Your task to perform on an android device: Go to sound settings Image 0: 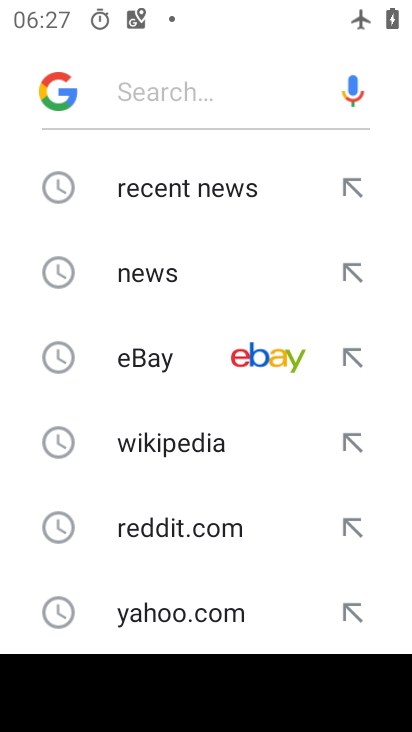
Step 0: press home button
Your task to perform on an android device: Go to sound settings Image 1: 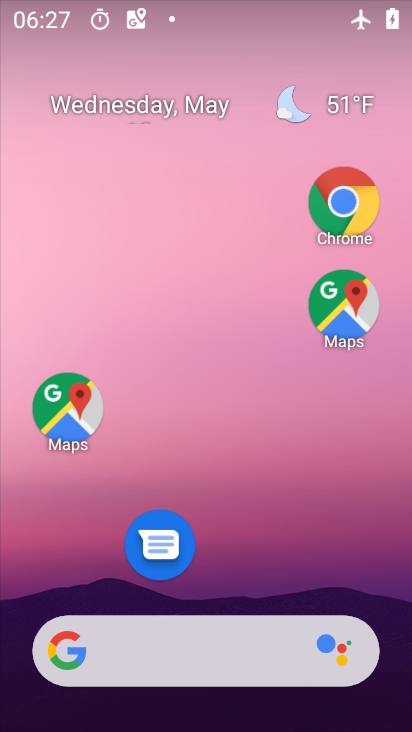
Step 1: click (338, 220)
Your task to perform on an android device: Go to sound settings Image 2: 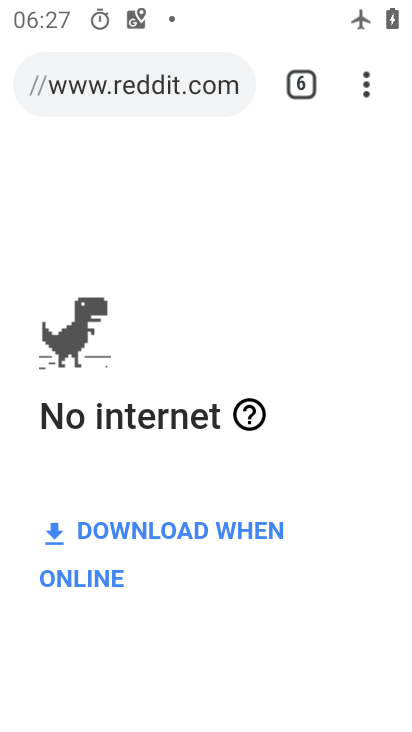
Step 2: press home button
Your task to perform on an android device: Go to sound settings Image 3: 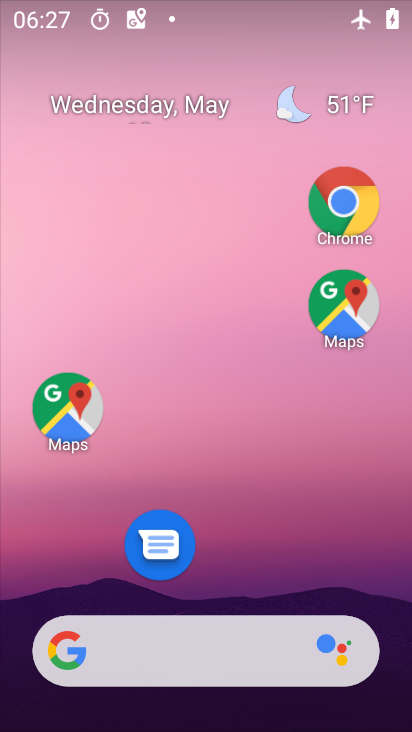
Step 3: drag from (275, 505) to (176, 113)
Your task to perform on an android device: Go to sound settings Image 4: 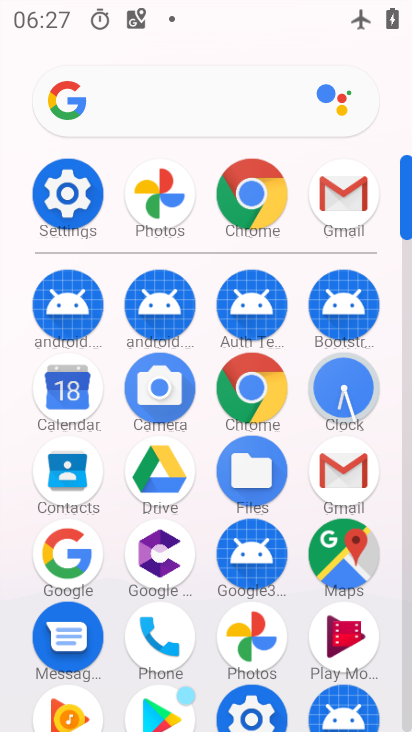
Step 4: click (73, 200)
Your task to perform on an android device: Go to sound settings Image 5: 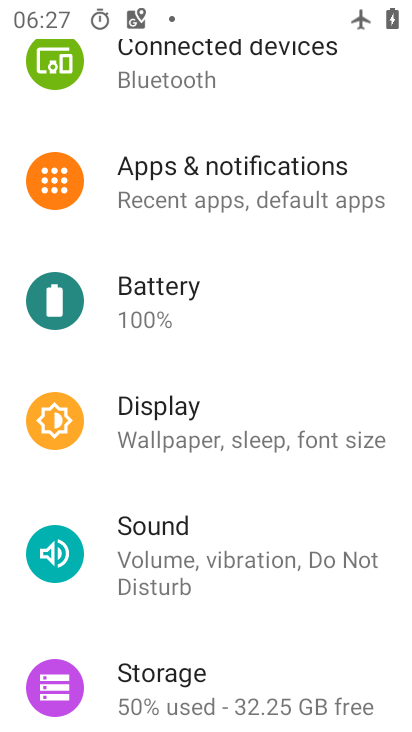
Step 5: click (166, 558)
Your task to perform on an android device: Go to sound settings Image 6: 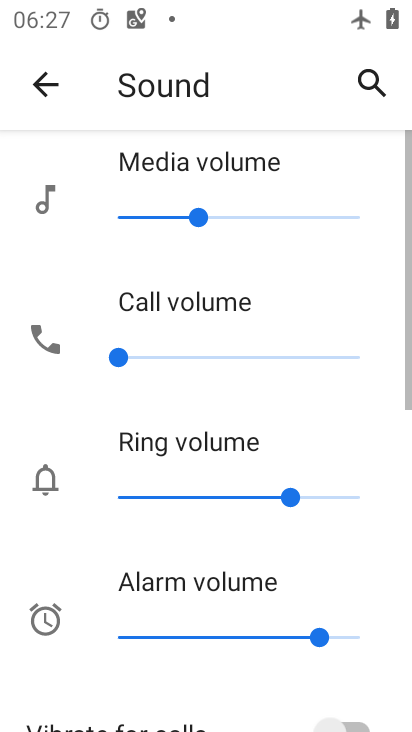
Step 6: task complete